Your task to perform on an android device: What's on my calendar today? Image 0: 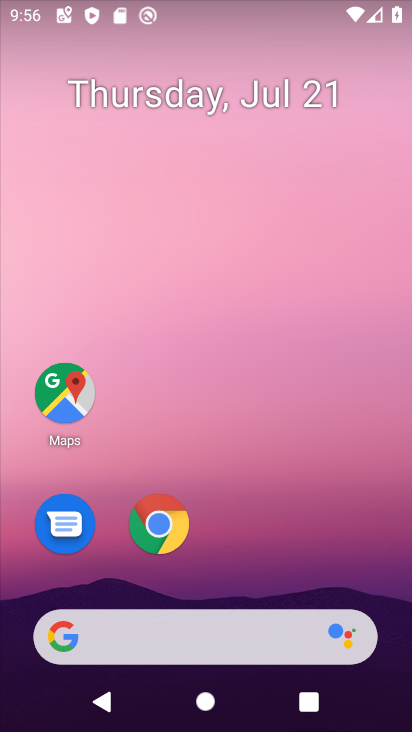
Step 0: press home button
Your task to perform on an android device: What's on my calendar today? Image 1: 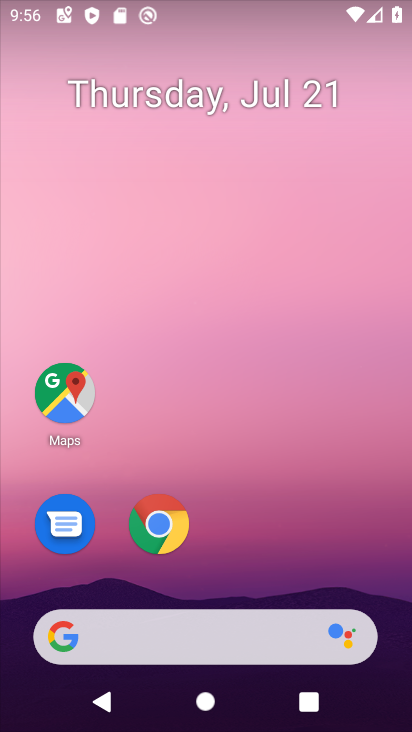
Step 1: drag from (150, 652) to (199, 20)
Your task to perform on an android device: What's on my calendar today? Image 2: 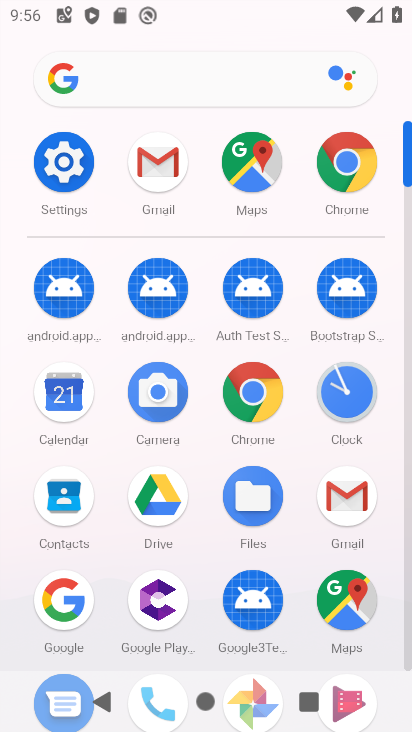
Step 2: click (63, 404)
Your task to perform on an android device: What's on my calendar today? Image 3: 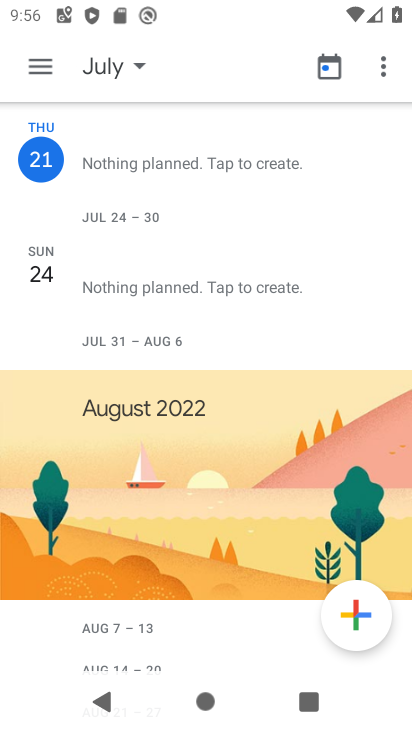
Step 3: task complete